Your task to perform on an android device: open app "Google Drive" (install if not already installed) Image 0: 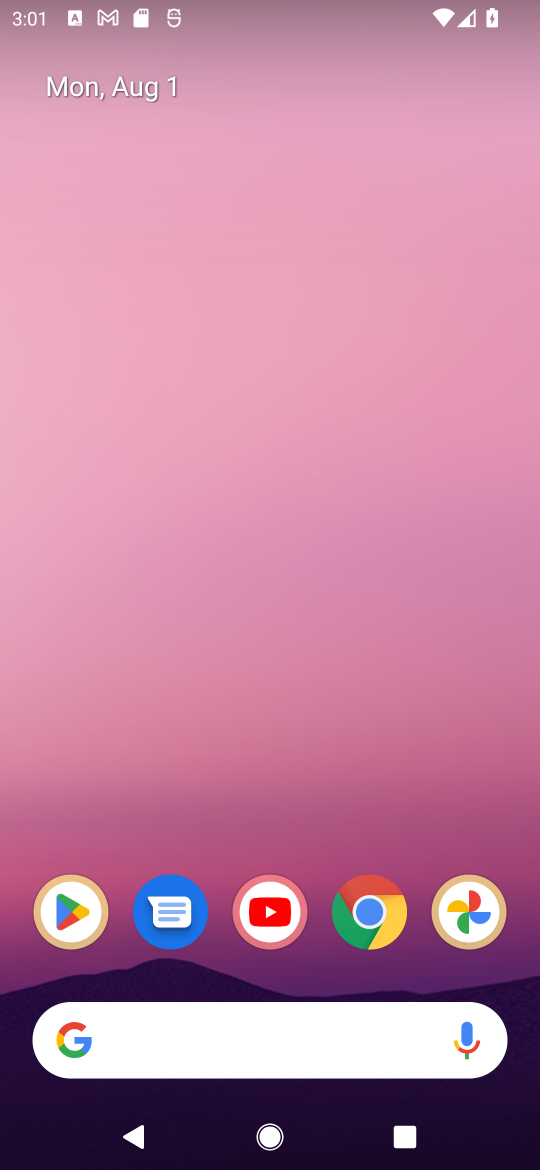
Step 0: drag from (216, 987) to (204, 11)
Your task to perform on an android device: open app "Google Drive" (install if not already installed) Image 1: 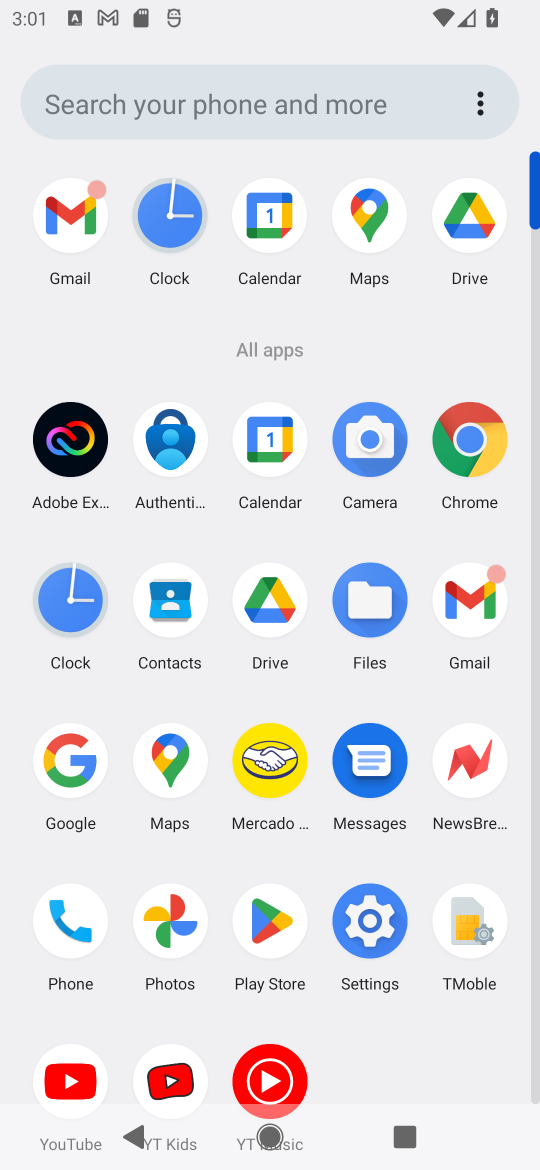
Step 1: click (259, 599)
Your task to perform on an android device: open app "Google Drive" (install if not already installed) Image 2: 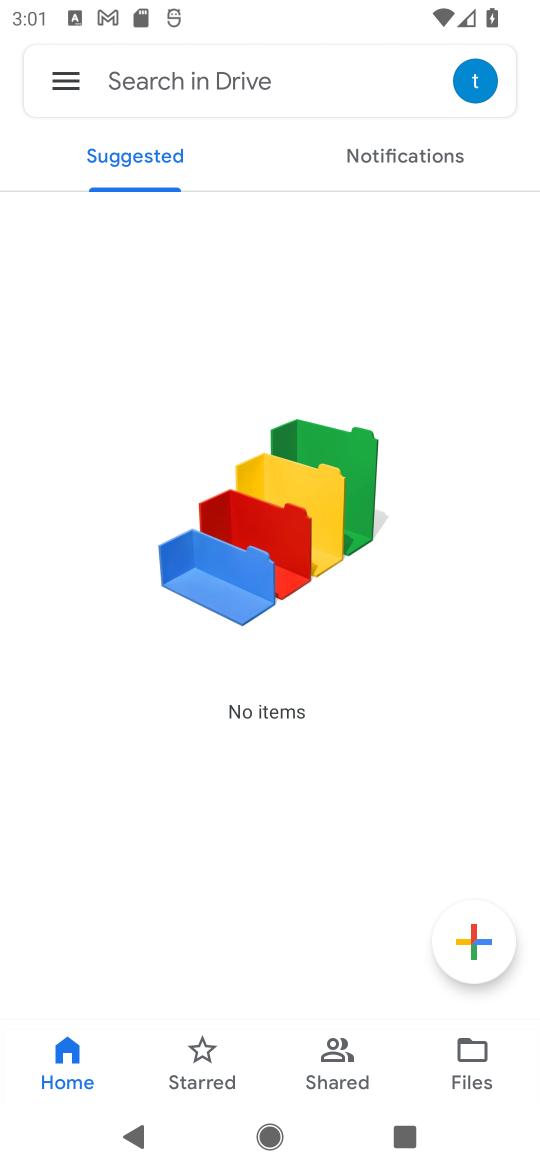
Step 2: task complete